Your task to perform on an android device: turn on showing notifications on the lock screen Image 0: 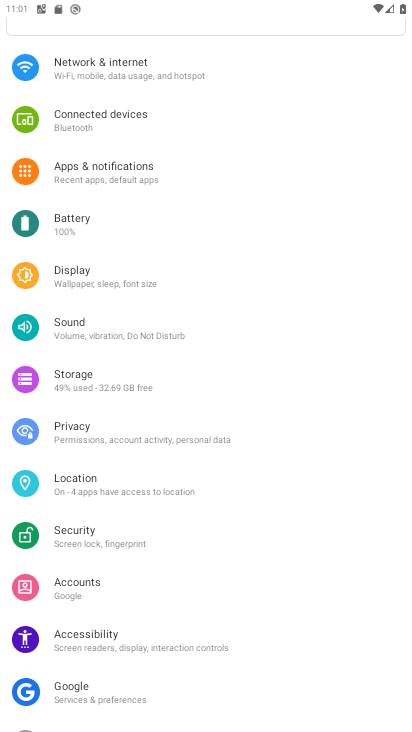
Step 0: press home button
Your task to perform on an android device: turn on showing notifications on the lock screen Image 1: 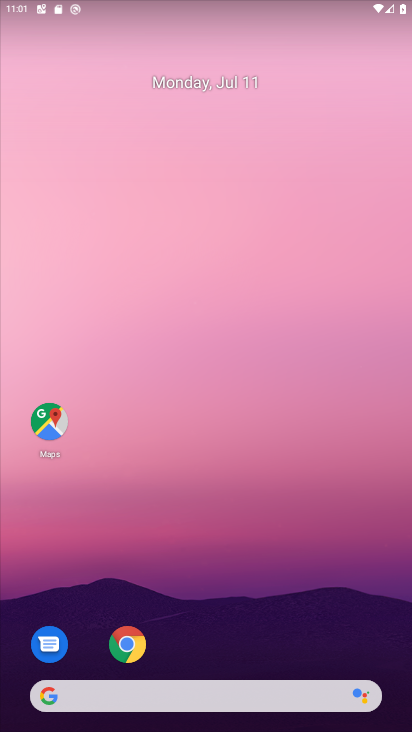
Step 1: drag from (251, 618) to (271, 92)
Your task to perform on an android device: turn on showing notifications on the lock screen Image 2: 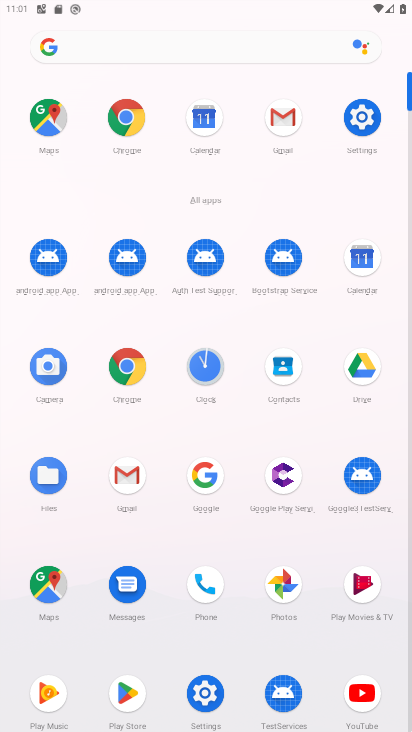
Step 2: click (365, 116)
Your task to perform on an android device: turn on showing notifications on the lock screen Image 3: 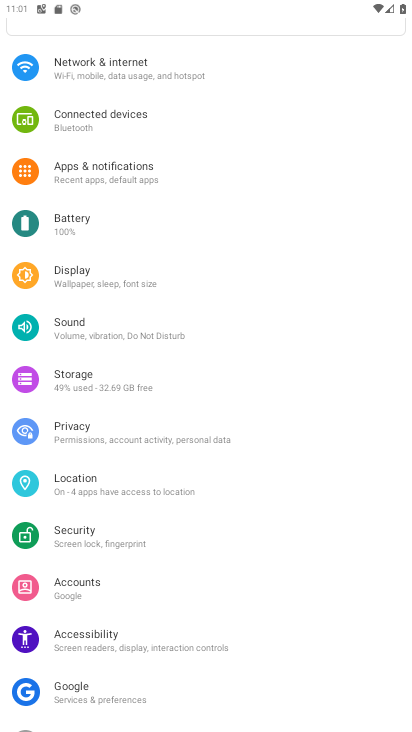
Step 3: click (125, 181)
Your task to perform on an android device: turn on showing notifications on the lock screen Image 4: 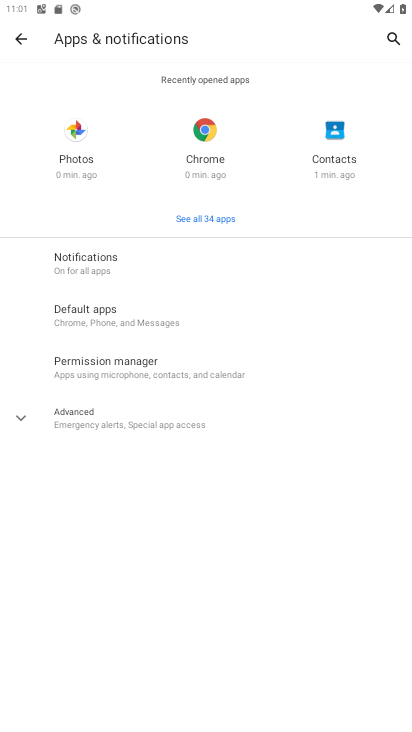
Step 4: click (103, 258)
Your task to perform on an android device: turn on showing notifications on the lock screen Image 5: 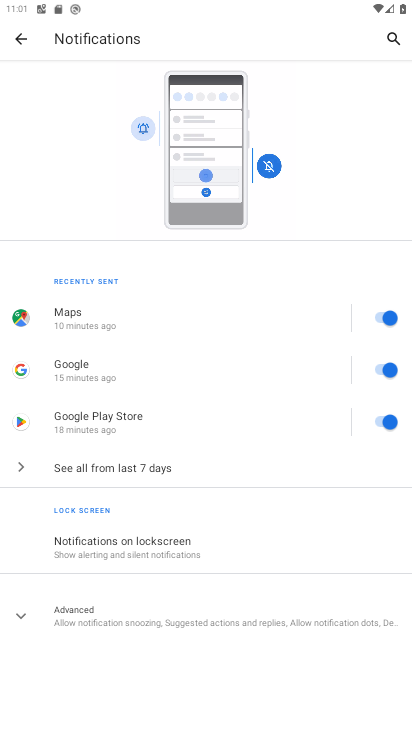
Step 5: click (147, 546)
Your task to perform on an android device: turn on showing notifications on the lock screen Image 6: 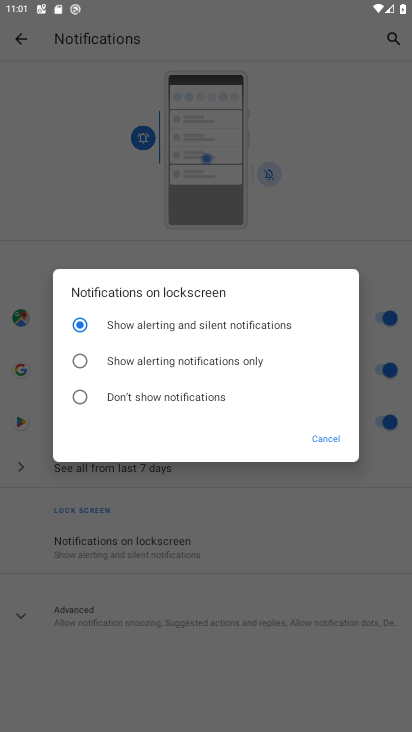
Step 6: click (241, 324)
Your task to perform on an android device: turn on showing notifications on the lock screen Image 7: 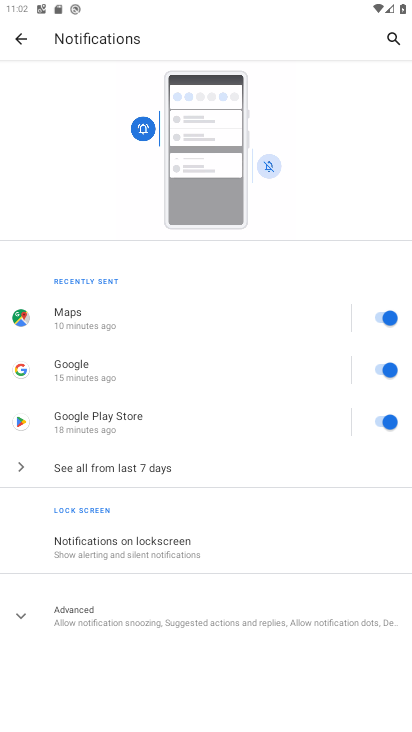
Step 7: task complete